Your task to perform on an android device: Check the news Image 0: 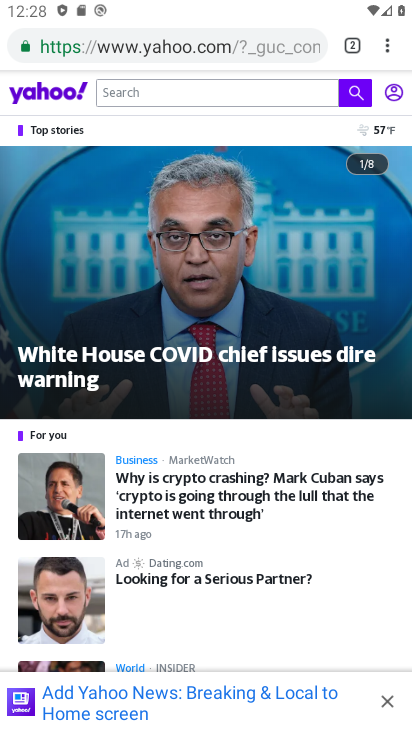
Step 0: click (355, 44)
Your task to perform on an android device: Check the news Image 1: 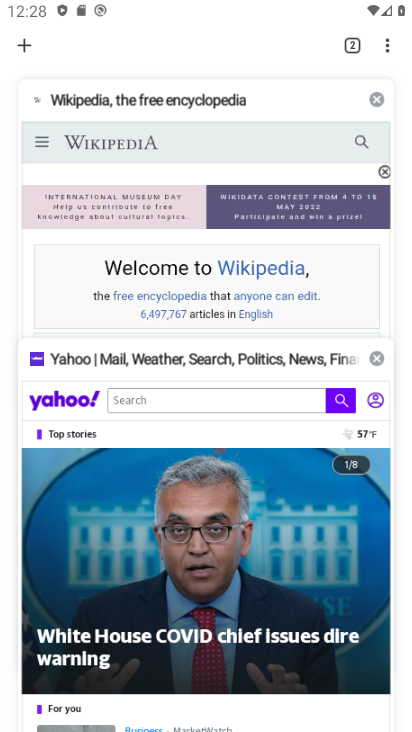
Step 1: click (35, 47)
Your task to perform on an android device: Check the news Image 2: 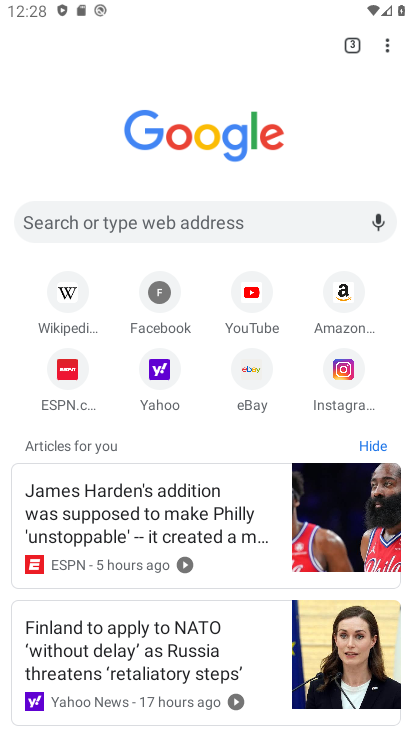
Step 2: click (147, 215)
Your task to perform on an android device: Check the news Image 3: 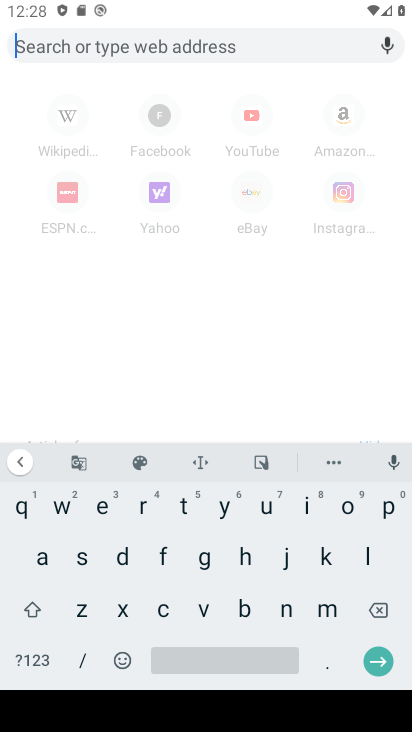
Step 3: click (284, 603)
Your task to perform on an android device: Check the news Image 4: 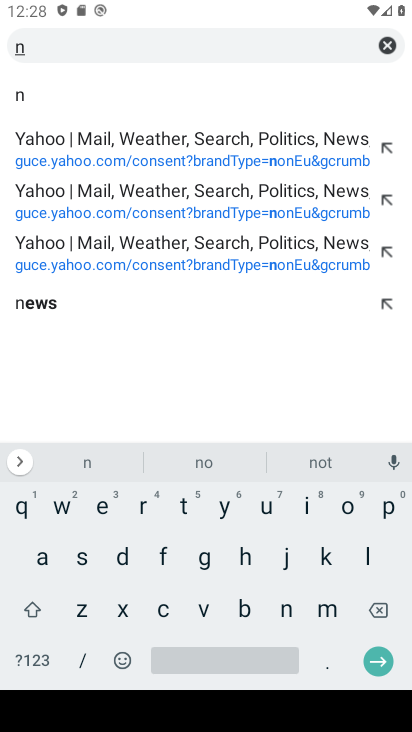
Step 4: click (103, 507)
Your task to perform on an android device: Check the news Image 5: 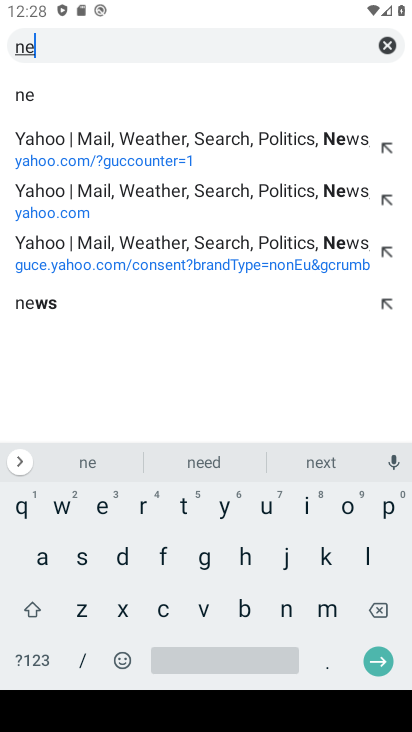
Step 5: click (60, 505)
Your task to perform on an android device: Check the news Image 6: 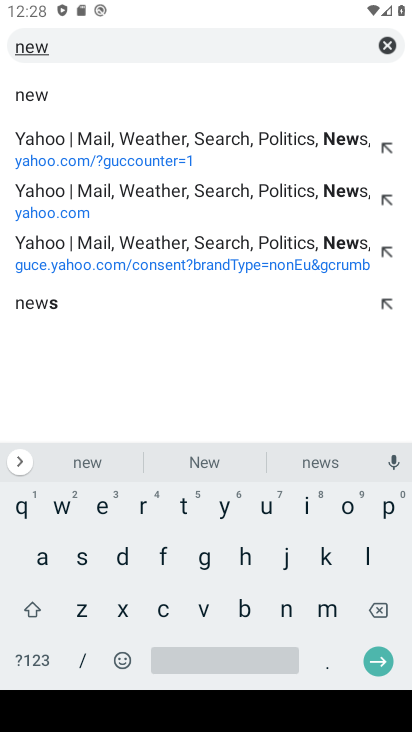
Step 6: click (81, 557)
Your task to perform on an android device: Check the news Image 7: 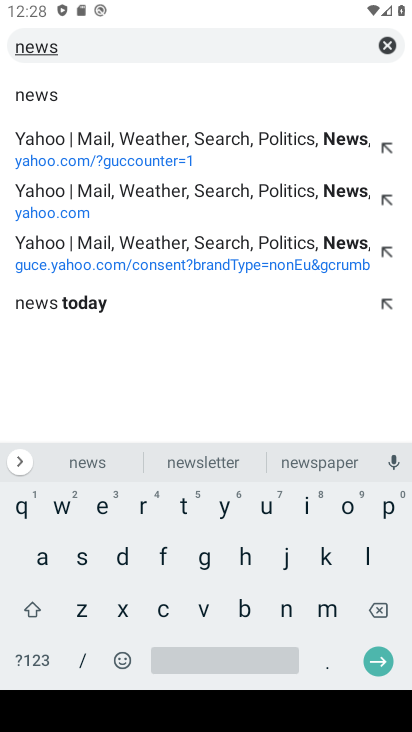
Step 7: click (384, 661)
Your task to perform on an android device: Check the news Image 8: 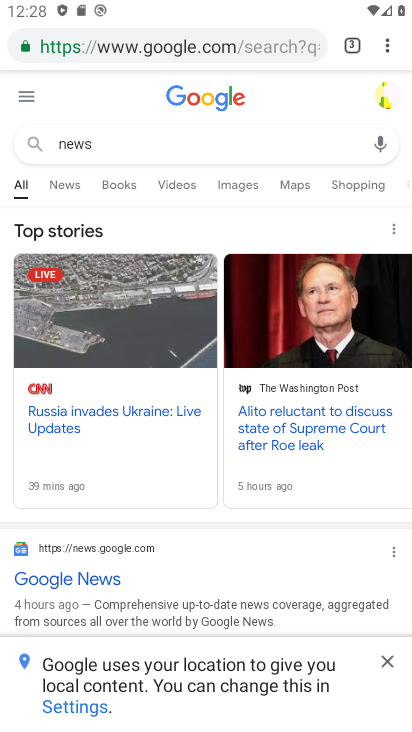
Step 8: task complete